Your task to perform on an android device: open a bookmark in the chrome app Image 0: 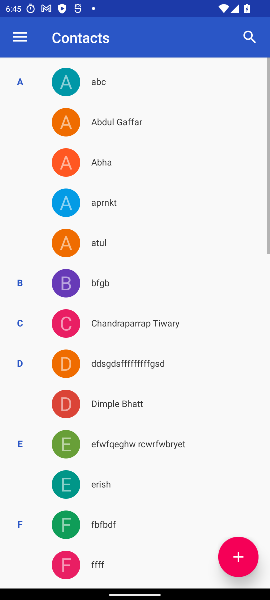
Step 0: press home button
Your task to perform on an android device: open a bookmark in the chrome app Image 1: 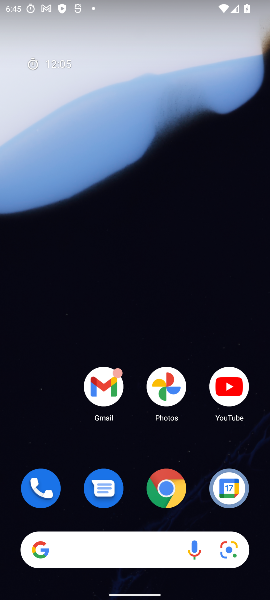
Step 1: drag from (76, 145) to (82, 3)
Your task to perform on an android device: open a bookmark in the chrome app Image 2: 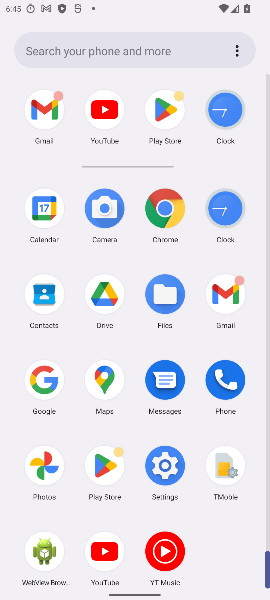
Step 2: click (164, 198)
Your task to perform on an android device: open a bookmark in the chrome app Image 3: 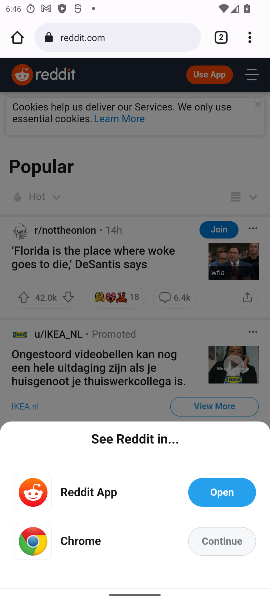
Step 3: task complete